Your task to perform on an android device: When is my next meeting? Image 0: 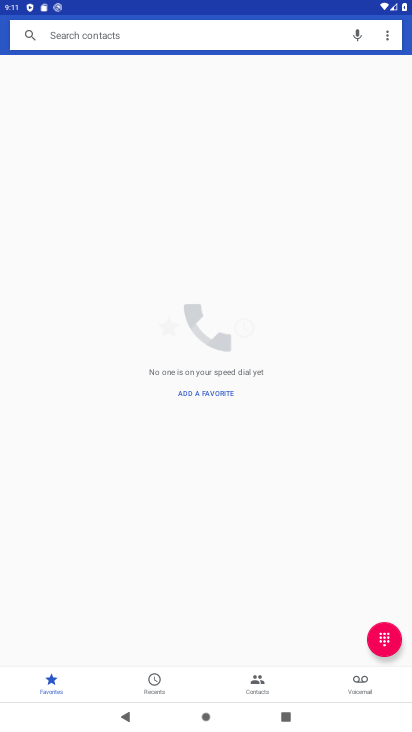
Step 0: press home button
Your task to perform on an android device: When is my next meeting? Image 1: 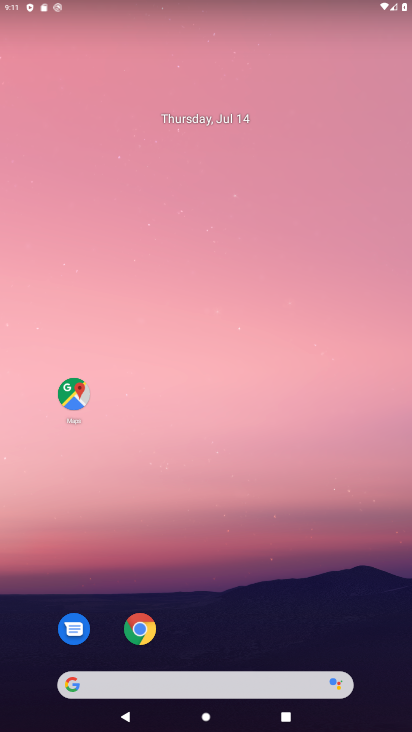
Step 1: drag from (313, 610) to (223, 173)
Your task to perform on an android device: When is my next meeting? Image 2: 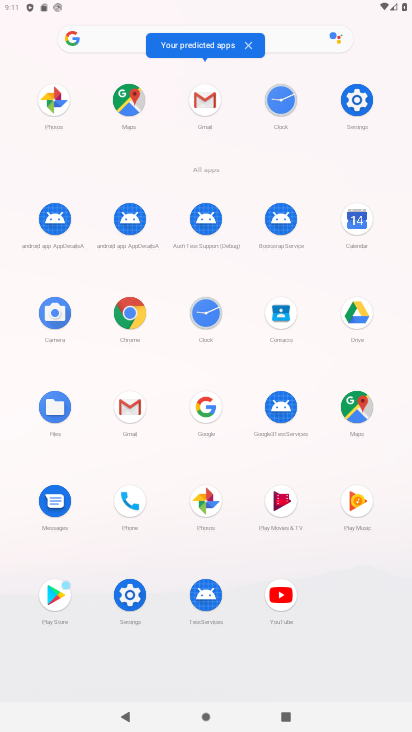
Step 2: click (358, 225)
Your task to perform on an android device: When is my next meeting? Image 3: 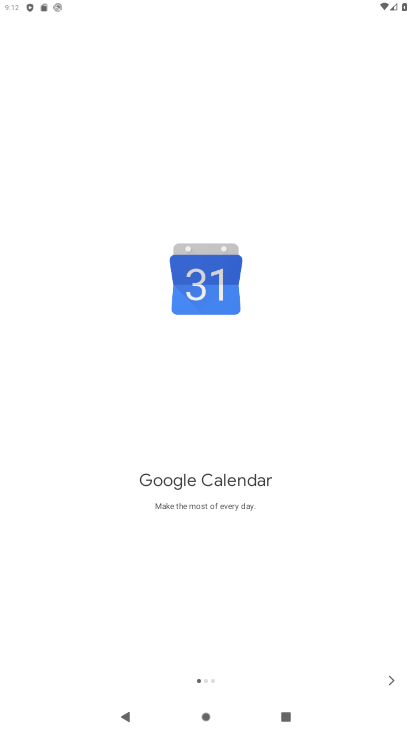
Step 3: click (394, 673)
Your task to perform on an android device: When is my next meeting? Image 4: 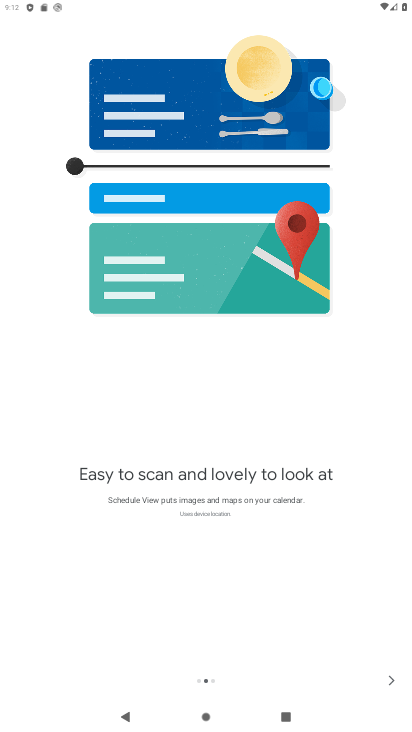
Step 4: click (392, 678)
Your task to perform on an android device: When is my next meeting? Image 5: 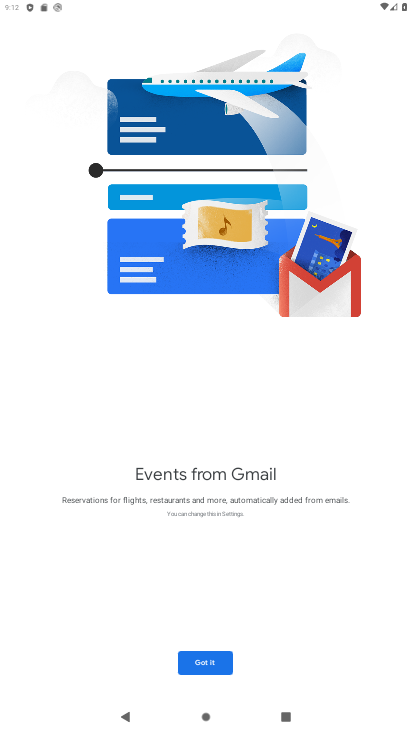
Step 5: click (220, 663)
Your task to perform on an android device: When is my next meeting? Image 6: 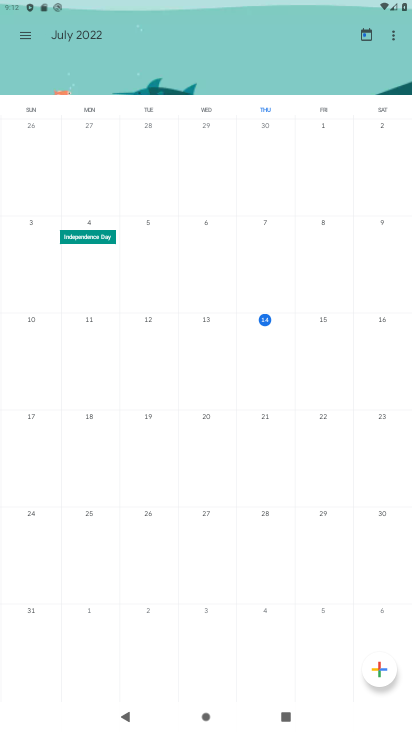
Step 6: click (27, 30)
Your task to perform on an android device: When is my next meeting? Image 7: 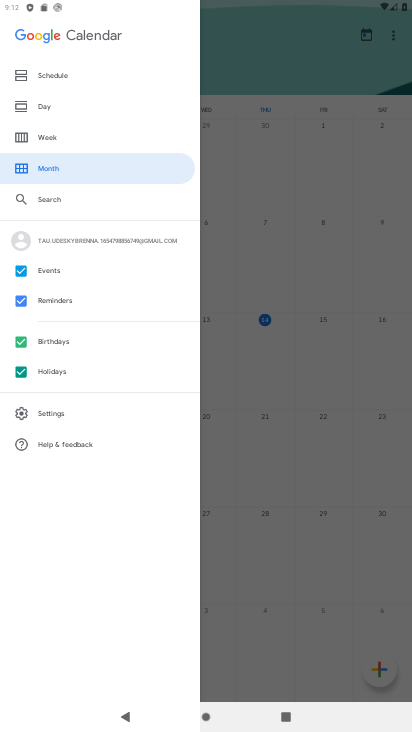
Step 7: click (62, 79)
Your task to perform on an android device: When is my next meeting? Image 8: 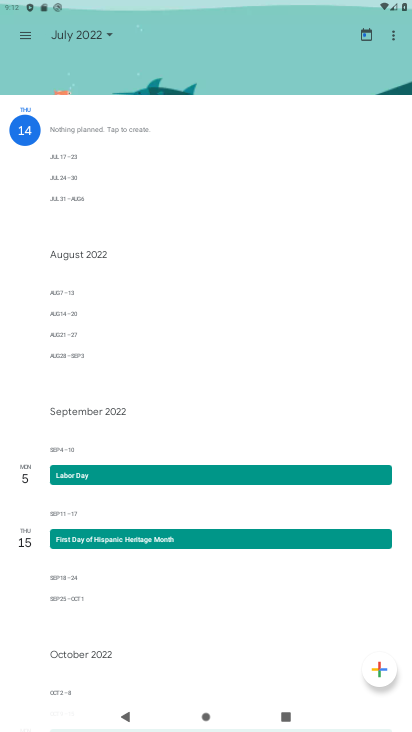
Step 8: task complete